Your task to perform on an android device: Clear all items from cart on amazon.com. Add "alienware area 51" to the cart on amazon.com Image 0: 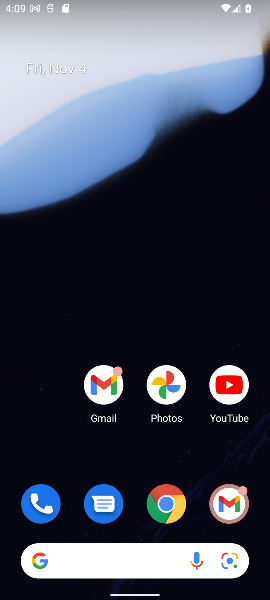
Step 0: click (169, 510)
Your task to perform on an android device: Clear all items from cart on amazon.com. Add "alienware area 51" to the cart on amazon.com Image 1: 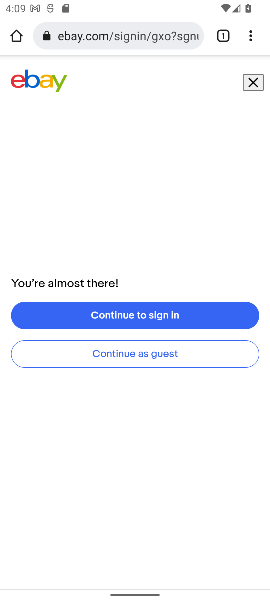
Step 1: click (108, 40)
Your task to perform on an android device: Clear all items from cart on amazon.com. Add "alienware area 51" to the cart on amazon.com Image 2: 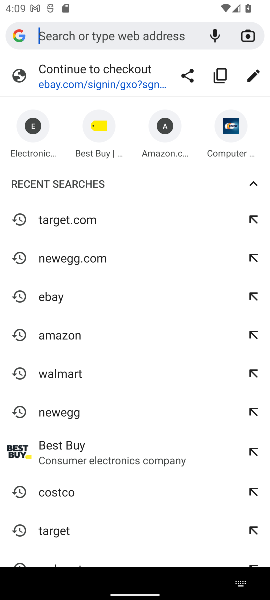
Step 2: click (66, 340)
Your task to perform on an android device: Clear all items from cart on amazon.com. Add "alienware area 51" to the cart on amazon.com Image 3: 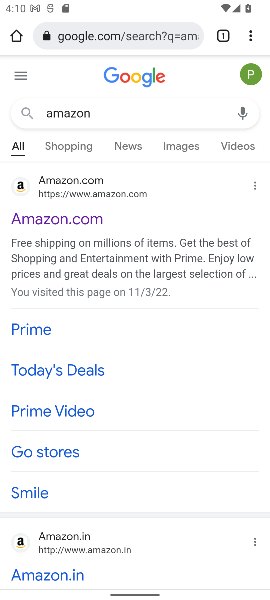
Step 3: click (38, 216)
Your task to perform on an android device: Clear all items from cart on amazon.com. Add "alienware area 51" to the cart on amazon.com Image 4: 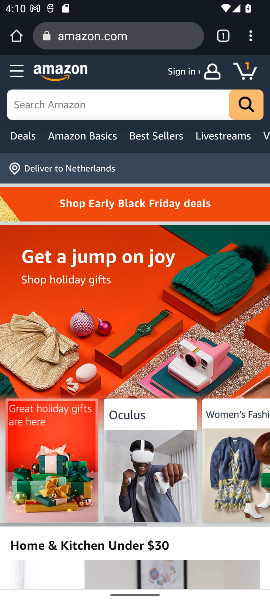
Step 4: click (239, 71)
Your task to perform on an android device: Clear all items from cart on amazon.com. Add "alienware area 51" to the cart on amazon.com Image 5: 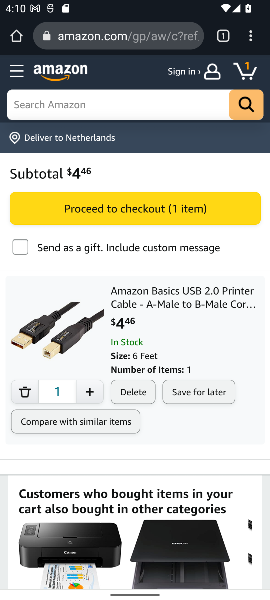
Step 5: click (141, 398)
Your task to perform on an android device: Clear all items from cart on amazon.com. Add "alienware area 51" to the cart on amazon.com Image 6: 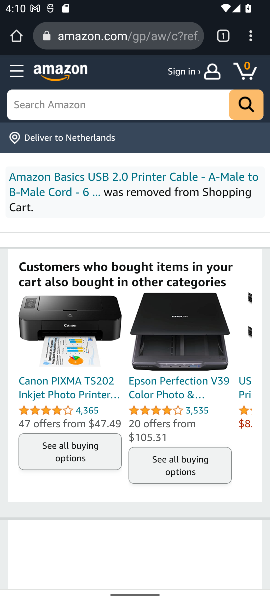
Step 6: click (59, 108)
Your task to perform on an android device: Clear all items from cart on amazon.com. Add "alienware area 51" to the cart on amazon.com Image 7: 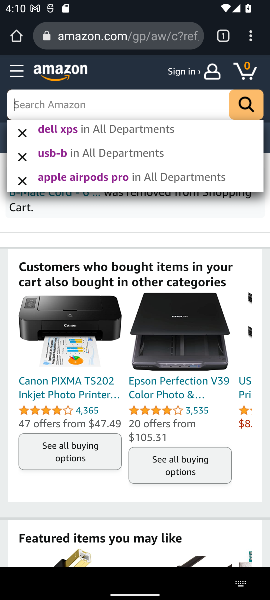
Step 7: type "alienware area 51"
Your task to perform on an android device: Clear all items from cart on amazon.com. Add "alienware area 51" to the cart on amazon.com Image 8: 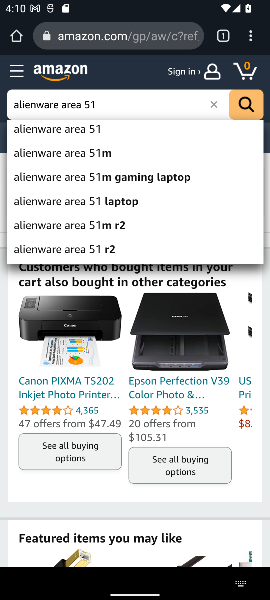
Step 8: click (76, 136)
Your task to perform on an android device: Clear all items from cart on amazon.com. Add "alienware area 51" to the cart on amazon.com Image 9: 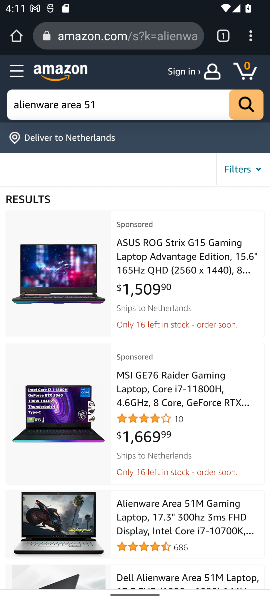
Step 9: click (108, 528)
Your task to perform on an android device: Clear all items from cart on amazon.com. Add "alienware area 51" to the cart on amazon.com Image 10: 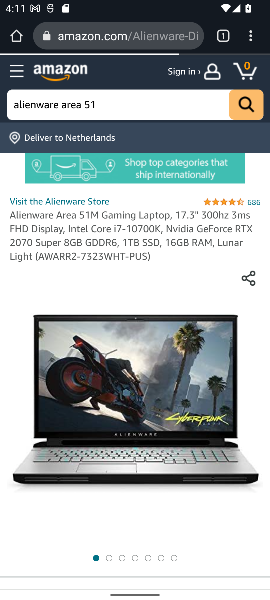
Step 10: drag from (172, 497) to (168, 208)
Your task to perform on an android device: Clear all items from cart on amazon.com. Add "alienware area 51" to the cart on amazon.com Image 11: 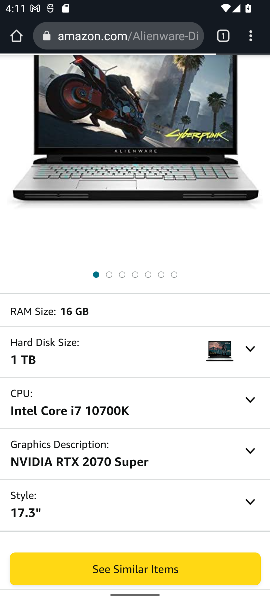
Step 11: drag from (121, 435) to (120, 289)
Your task to perform on an android device: Clear all items from cart on amazon.com. Add "alienware area 51" to the cart on amazon.com Image 12: 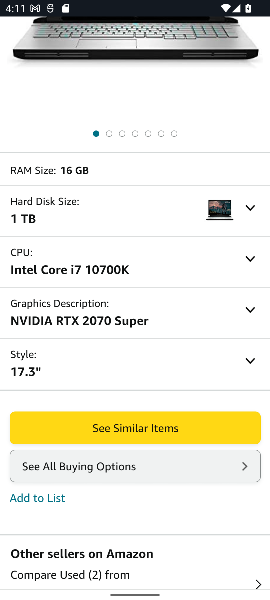
Step 12: press back button
Your task to perform on an android device: Clear all items from cart on amazon.com. Add "alienware area 51" to the cart on amazon.com Image 13: 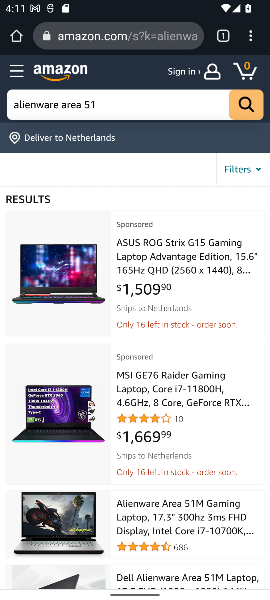
Step 13: drag from (143, 477) to (166, 295)
Your task to perform on an android device: Clear all items from cart on amazon.com. Add "alienware area 51" to the cart on amazon.com Image 14: 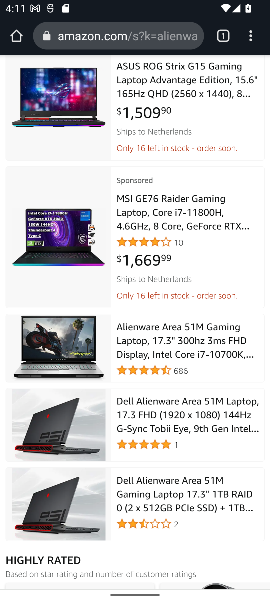
Step 14: drag from (122, 426) to (142, 308)
Your task to perform on an android device: Clear all items from cart on amazon.com. Add "alienware area 51" to the cart on amazon.com Image 15: 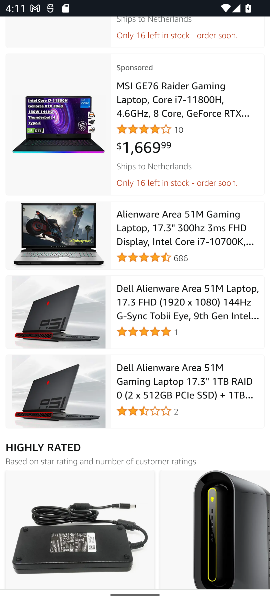
Step 15: drag from (81, 311) to (96, 337)
Your task to perform on an android device: Clear all items from cart on amazon.com. Add "alienware area 51" to the cart on amazon.com Image 16: 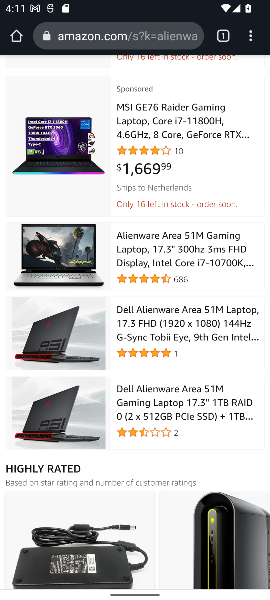
Step 16: click (90, 339)
Your task to perform on an android device: Clear all items from cart on amazon.com. Add "alienware area 51" to the cart on amazon.com Image 17: 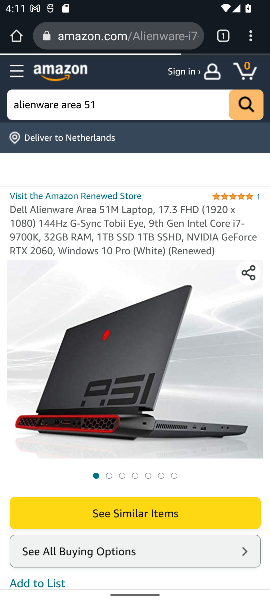
Step 17: drag from (121, 407) to (128, 265)
Your task to perform on an android device: Clear all items from cart on amazon.com. Add "alienware area 51" to the cart on amazon.com Image 18: 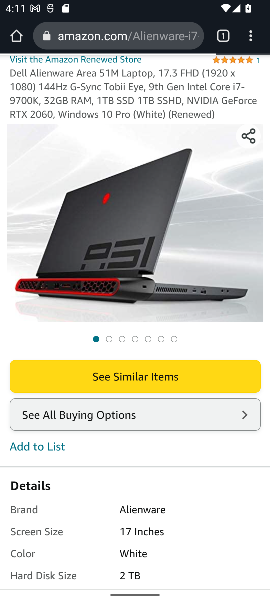
Step 18: press back button
Your task to perform on an android device: Clear all items from cart on amazon.com. Add "alienware area 51" to the cart on amazon.com Image 19: 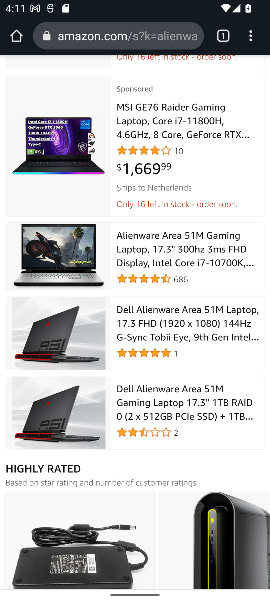
Step 19: click (135, 426)
Your task to perform on an android device: Clear all items from cart on amazon.com. Add "alienware area 51" to the cart on amazon.com Image 20: 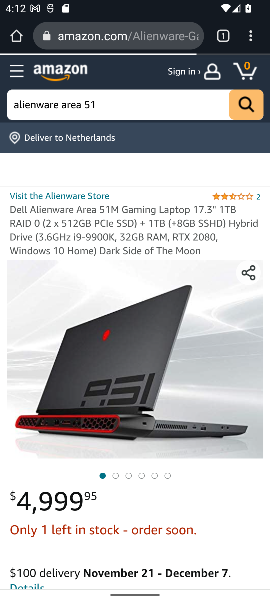
Step 20: drag from (155, 474) to (160, 241)
Your task to perform on an android device: Clear all items from cart on amazon.com. Add "alienware area 51" to the cart on amazon.com Image 21: 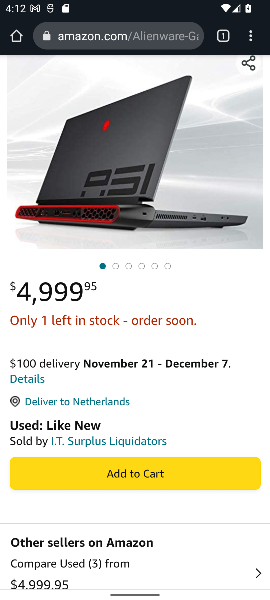
Step 21: click (127, 476)
Your task to perform on an android device: Clear all items from cart on amazon.com. Add "alienware area 51" to the cart on amazon.com Image 22: 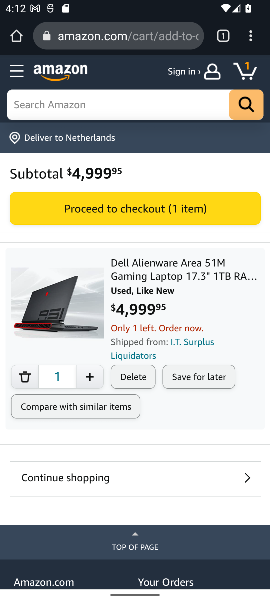
Step 22: task complete